Your task to perform on an android device: Clear the shopping cart on newegg. Add "razer blade" to the cart on newegg Image 0: 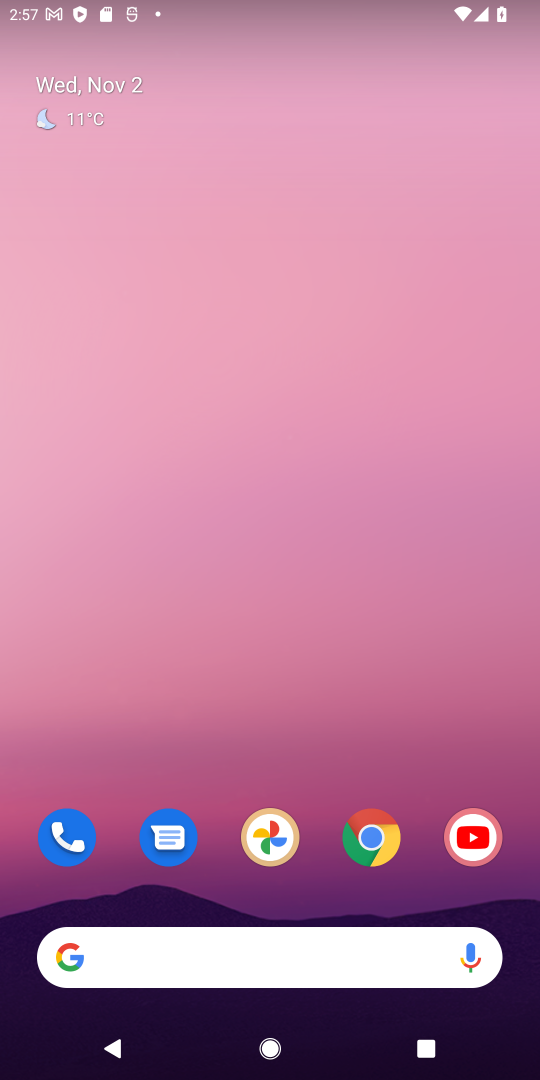
Step 0: press home button
Your task to perform on an android device: Clear the shopping cart on newegg. Add "razer blade" to the cart on newegg Image 1: 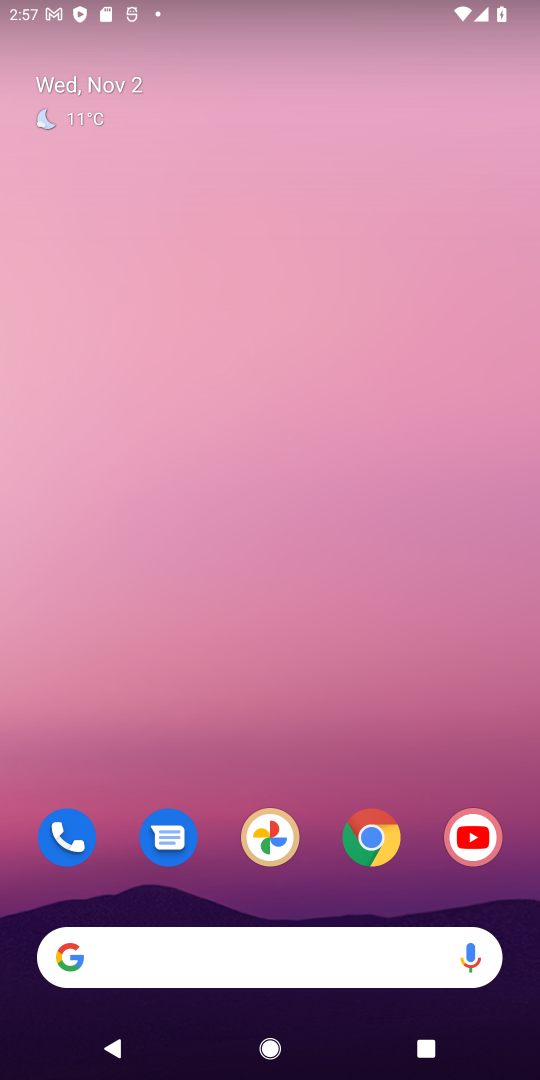
Step 1: drag from (312, 799) to (351, 126)
Your task to perform on an android device: Clear the shopping cart on newegg. Add "razer blade" to the cart on newegg Image 2: 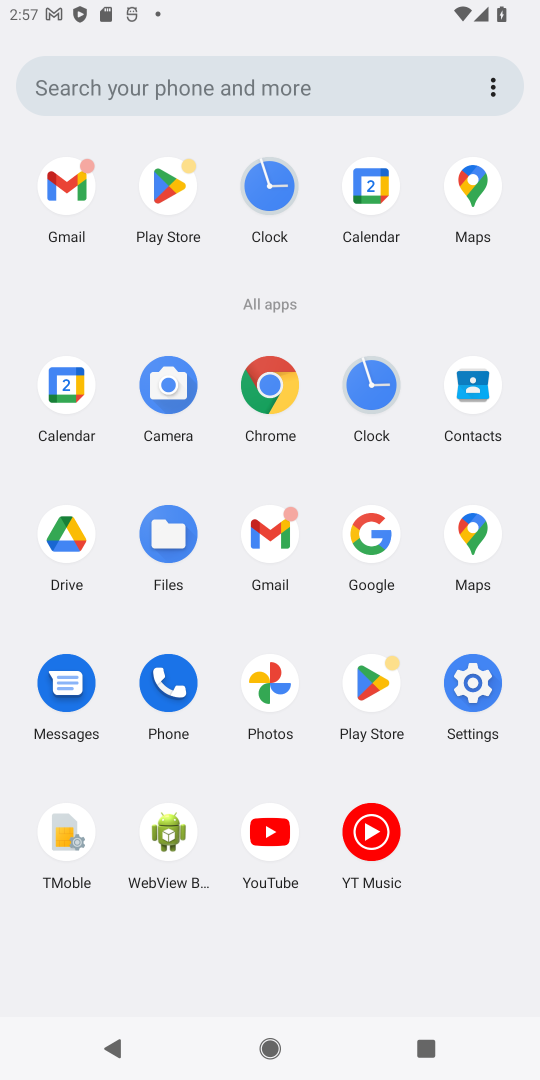
Step 2: click (266, 376)
Your task to perform on an android device: Clear the shopping cart on newegg. Add "razer blade" to the cart on newegg Image 3: 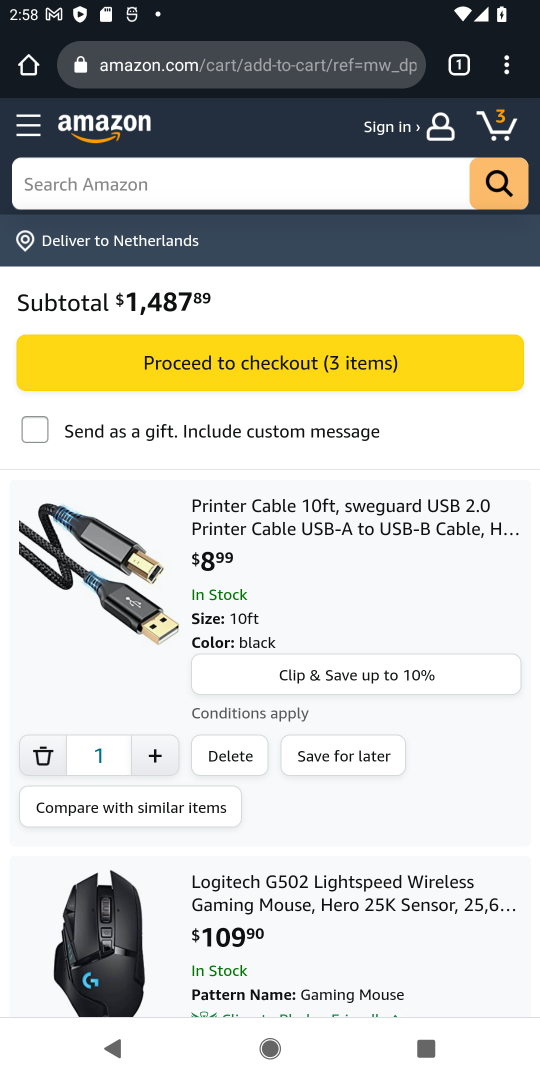
Step 3: click (171, 70)
Your task to perform on an android device: Clear the shopping cart on newegg. Add "razer blade" to the cart on newegg Image 4: 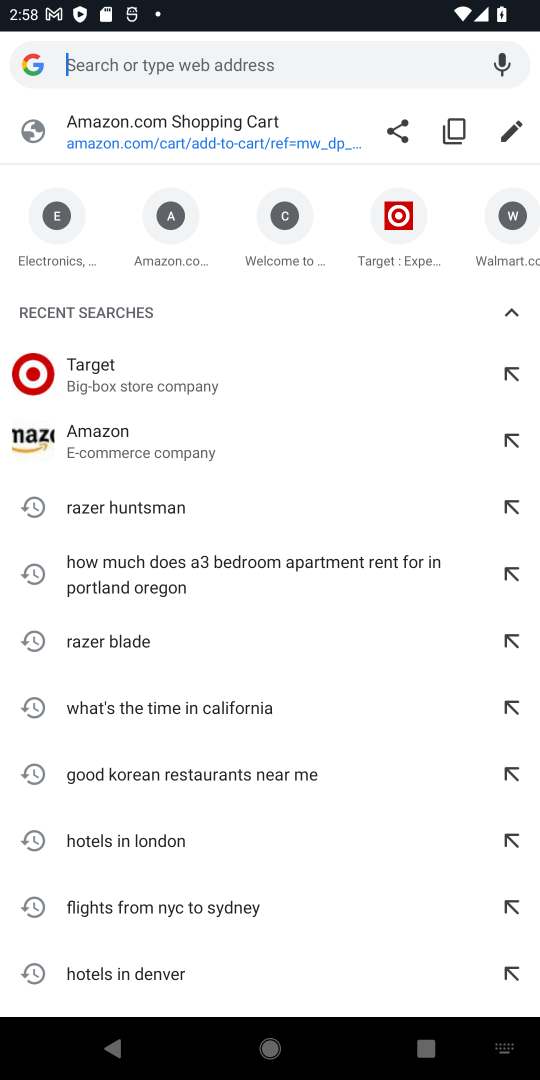
Step 4: type "newegg"
Your task to perform on an android device: Clear the shopping cart on newegg. Add "razer blade" to the cart on newegg Image 5: 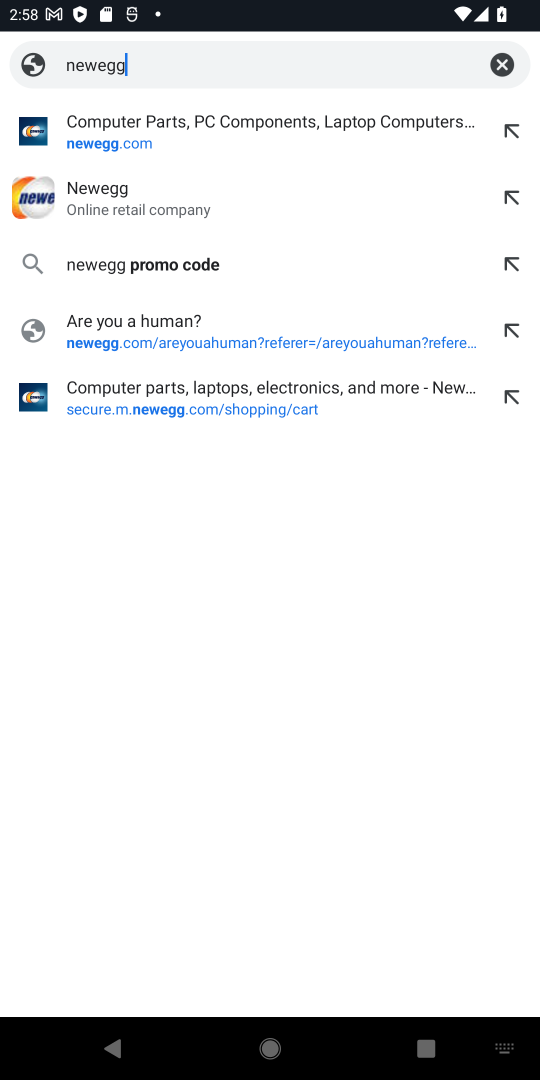
Step 5: click (132, 139)
Your task to perform on an android device: Clear the shopping cart on newegg. Add "razer blade" to the cart on newegg Image 6: 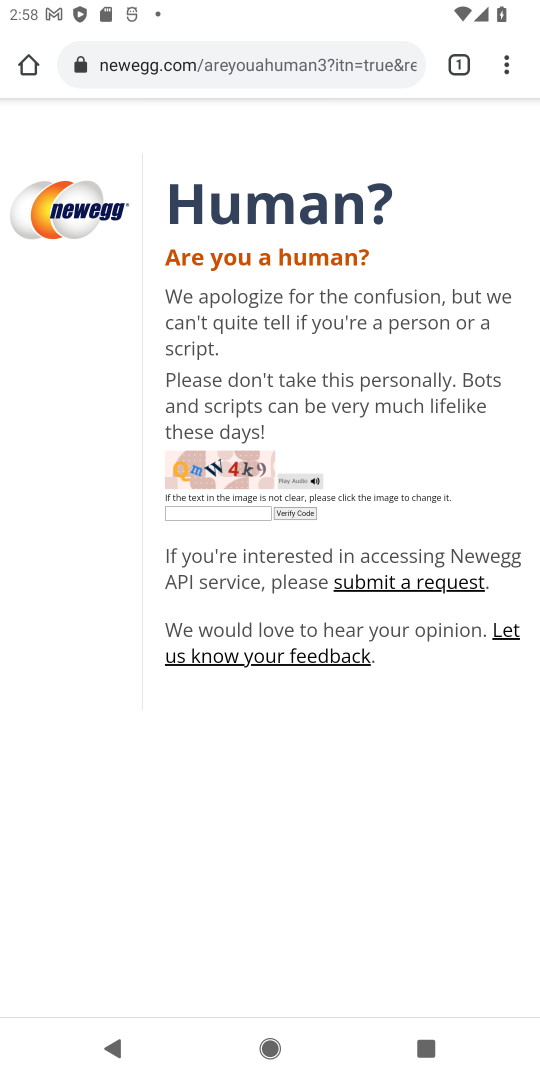
Step 6: press back button
Your task to perform on an android device: Clear the shopping cart on newegg. Add "razer blade" to the cart on newegg Image 7: 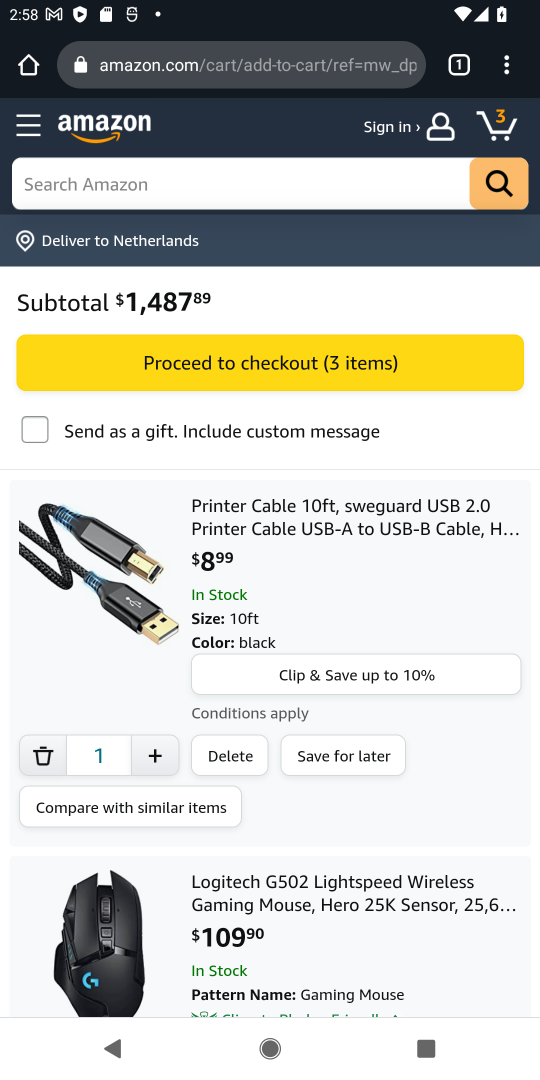
Step 7: click (144, 72)
Your task to perform on an android device: Clear the shopping cart on newegg. Add "razer blade" to the cart on newegg Image 8: 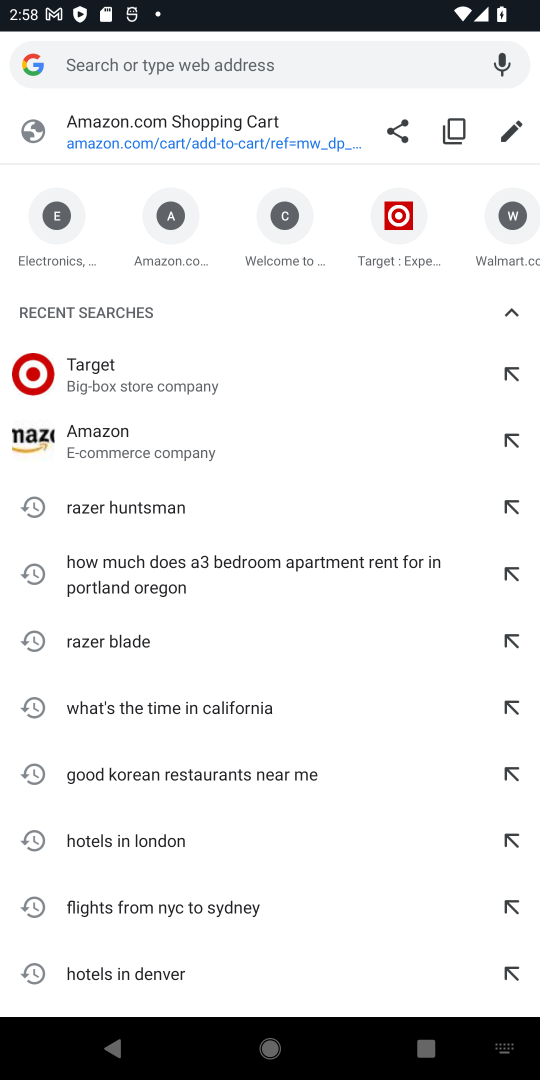
Step 8: type "newegg"
Your task to perform on an android device: Clear the shopping cart on newegg. Add "razer blade" to the cart on newegg Image 9: 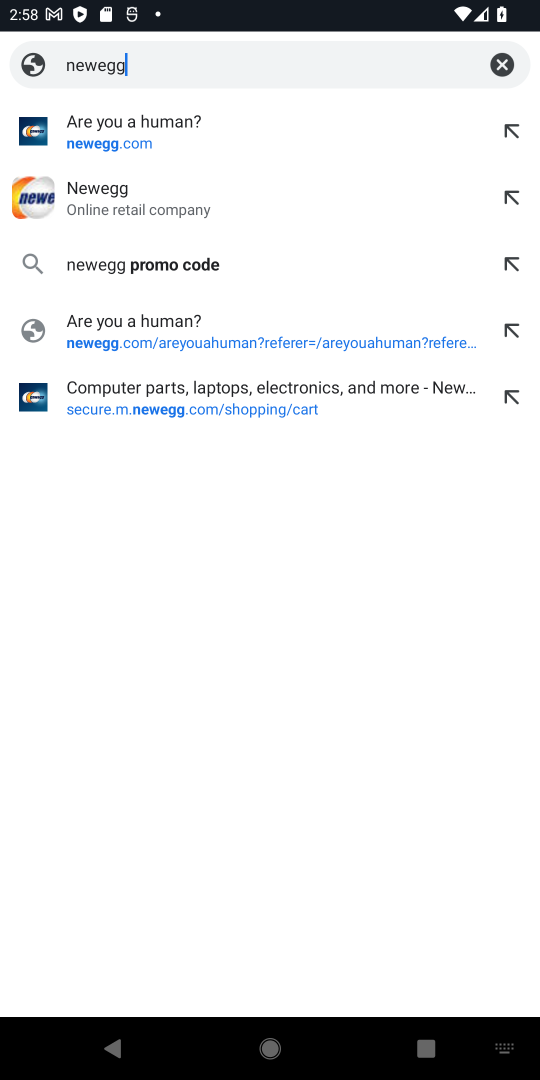
Step 9: click (116, 197)
Your task to perform on an android device: Clear the shopping cart on newegg. Add "razer blade" to the cart on newegg Image 10: 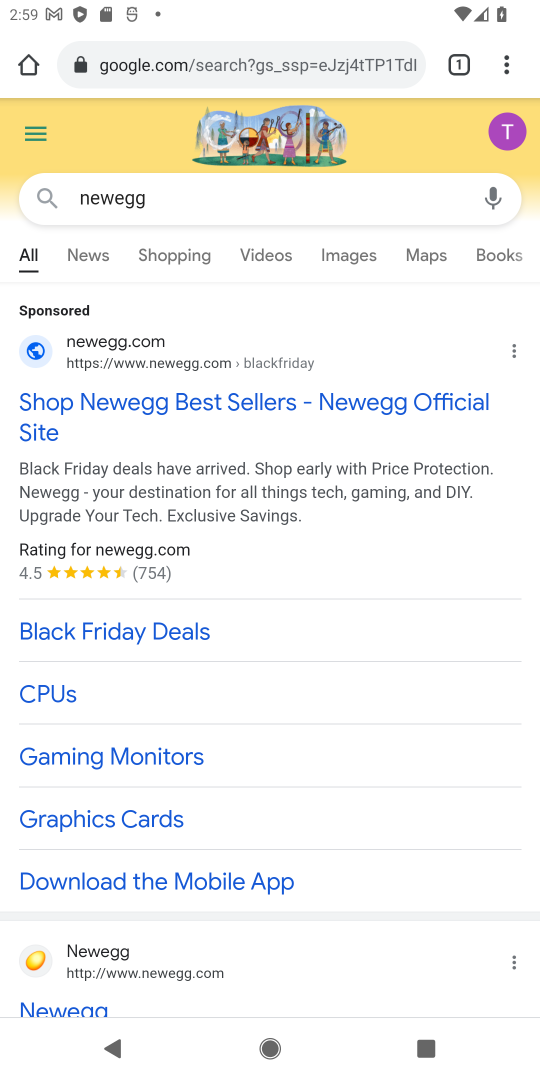
Step 10: click (152, 404)
Your task to perform on an android device: Clear the shopping cart on newegg. Add "razer blade" to the cart on newegg Image 11: 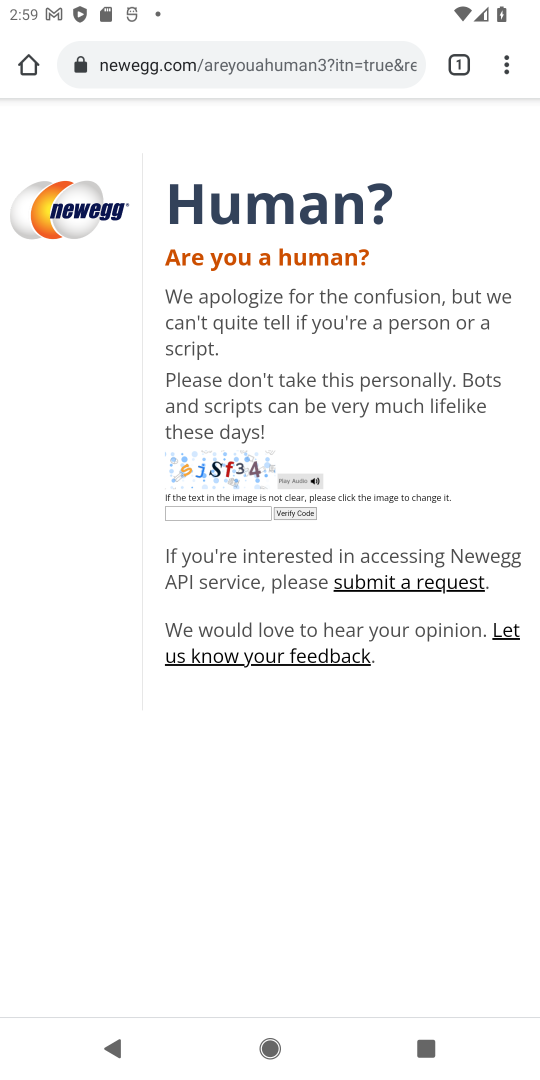
Step 11: press back button
Your task to perform on an android device: Clear the shopping cart on newegg. Add "razer blade" to the cart on newegg Image 12: 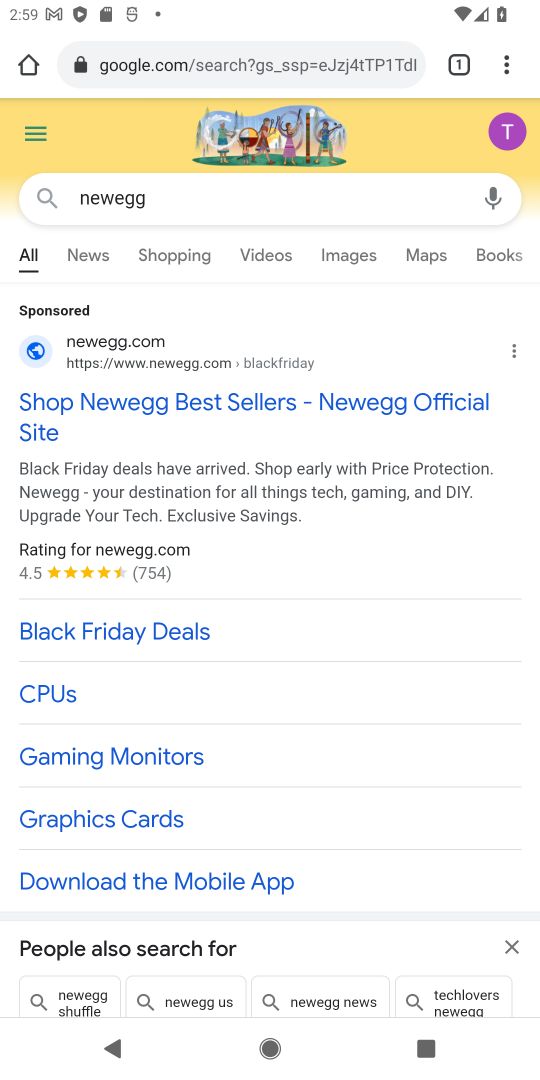
Step 12: drag from (232, 842) to (245, 266)
Your task to perform on an android device: Clear the shopping cart on newegg. Add "razer blade" to the cart on newegg Image 13: 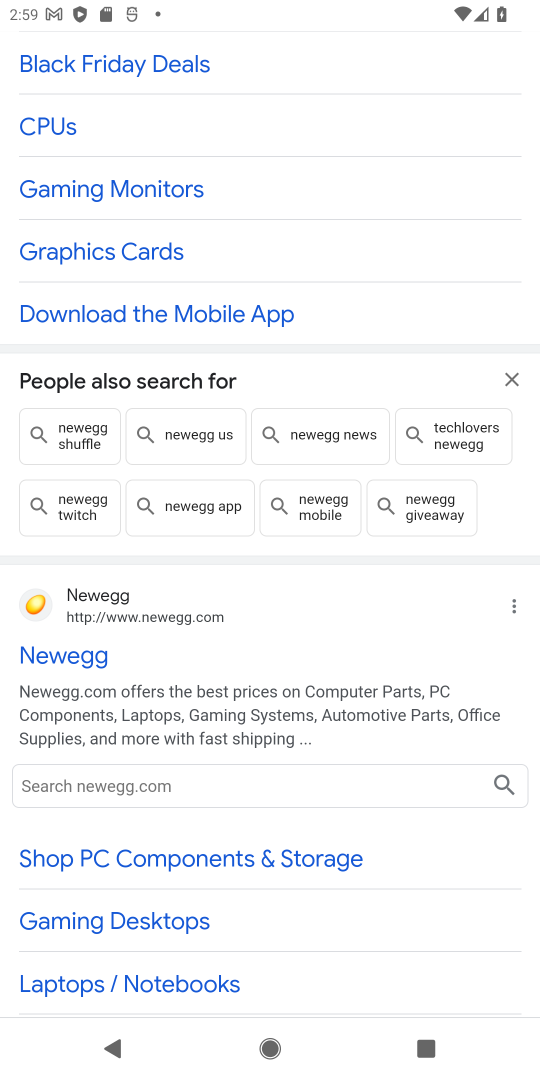
Step 13: click (49, 658)
Your task to perform on an android device: Clear the shopping cart on newegg. Add "razer blade" to the cart on newegg Image 14: 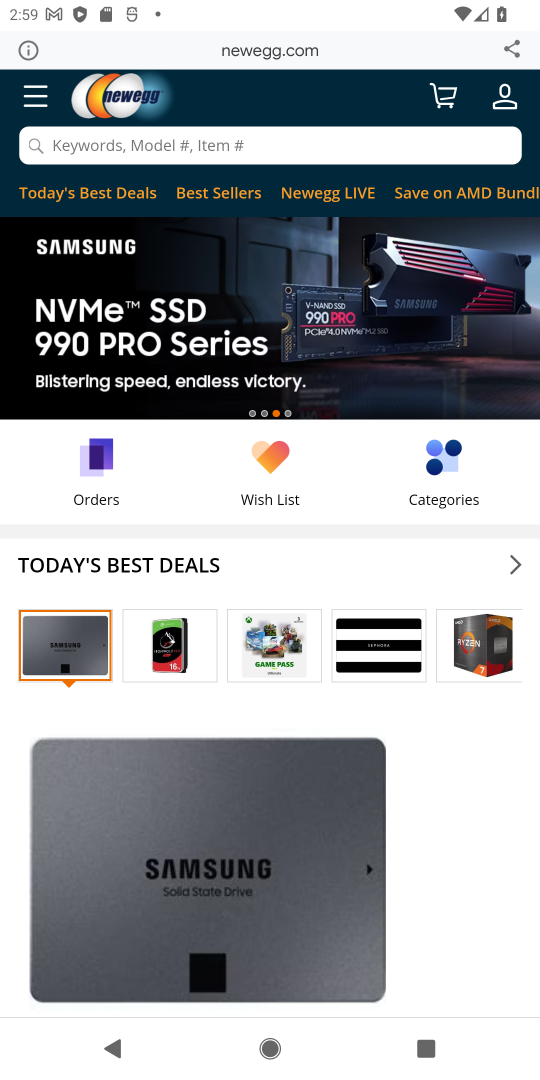
Step 14: drag from (440, 942) to (485, 354)
Your task to perform on an android device: Clear the shopping cart on newegg. Add "razer blade" to the cart on newegg Image 15: 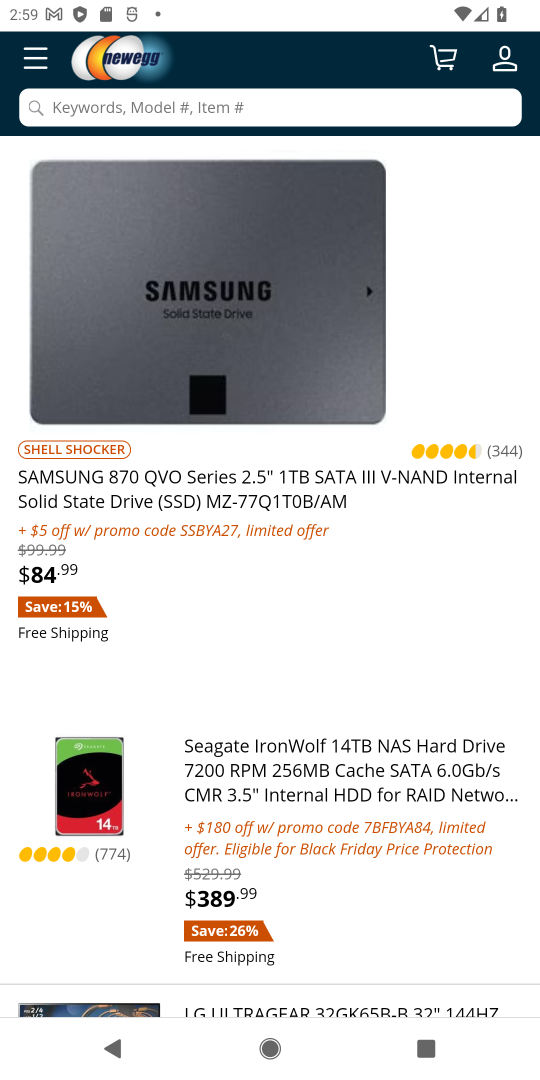
Step 15: click (179, 103)
Your task to perform on an android device: Clear the shopping cart on newegg. Add "razer blade" to the cart on newegg Image 16: 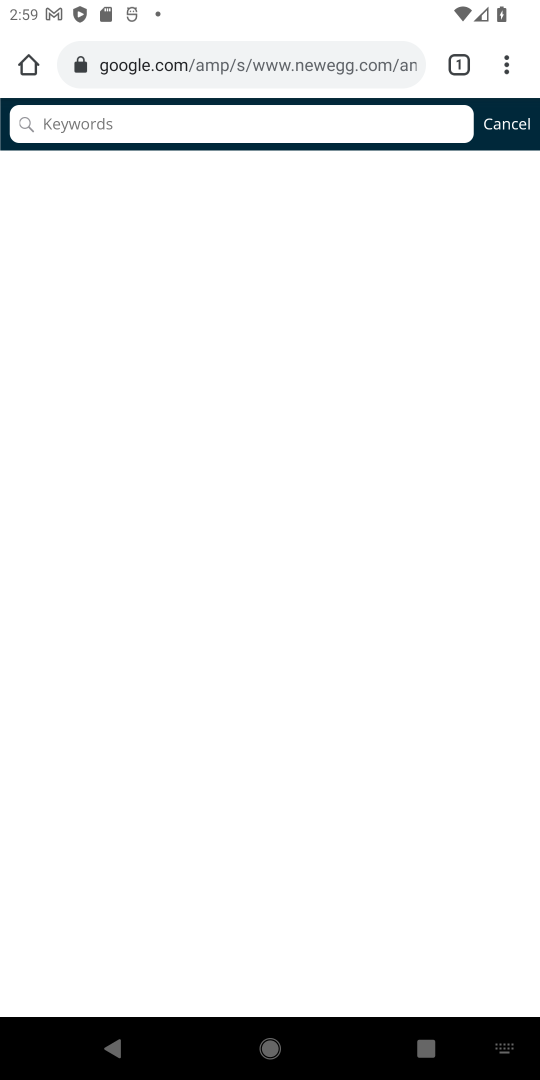
Step 16: type "razer blade"
Your task to perform on an android device: Clear the shopping cart on newegg. Add "razer blade" to the cart on newegg Image 17: 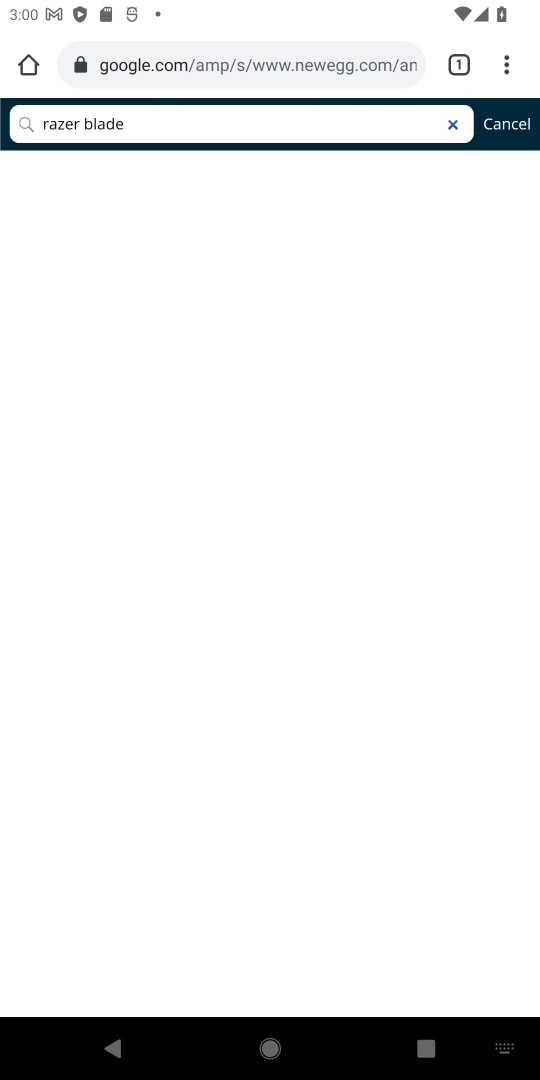
Step 17: task complete